Your task to perform on an android device: Open internet settings Image 0: 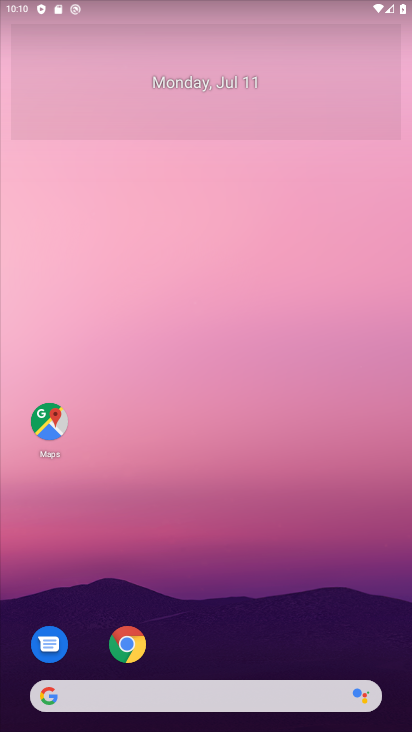
Step 0: drag from (231, 634) to (334, 20)
Your task to perform on an android device: Open internet settings Image 1: 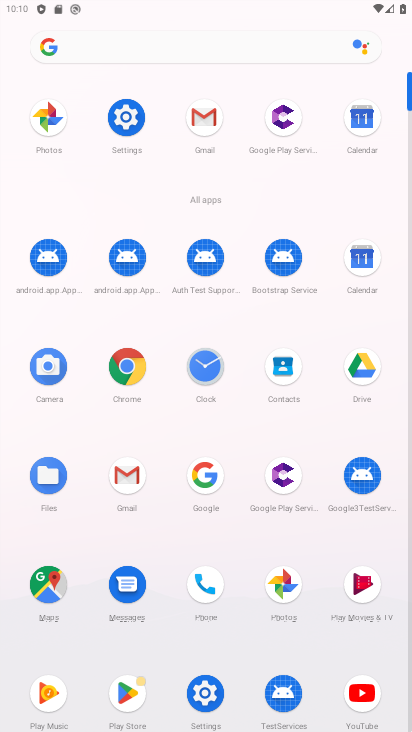
Step 1: click (204, 694)
Your task to perform on an android device: Open internet settings Image 2: 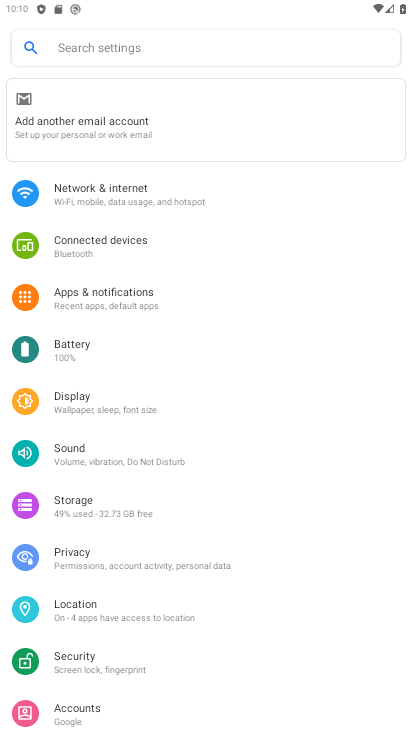
Step 2: click (156, 197)
Your task to perform on an android device: Open internet settings Image 3: 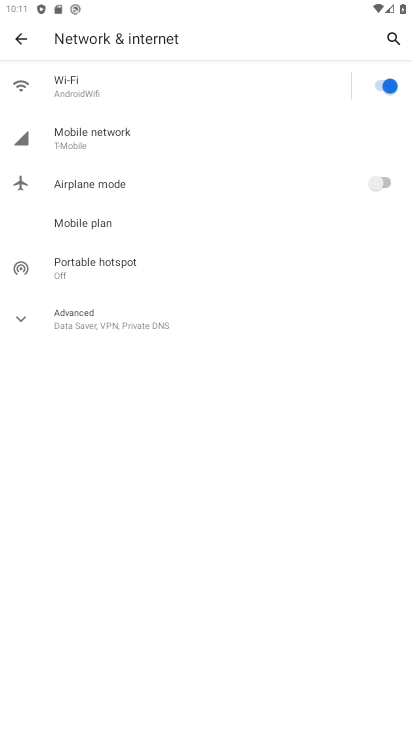
Step 3: task complete